Your task to perform on an android device: check data usage Image 0: 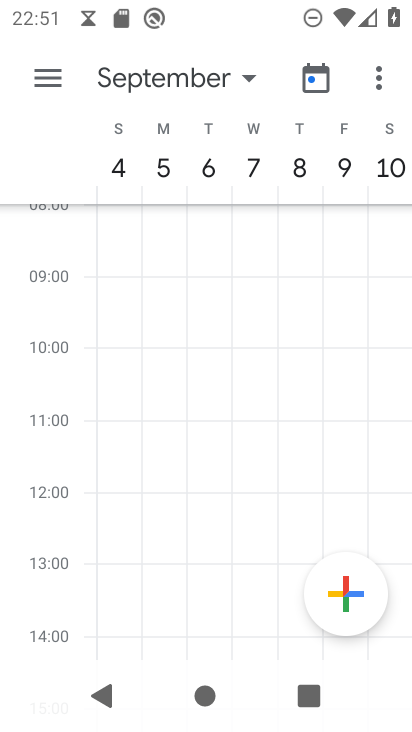
Step 0: press home button
Your task to perform on an android device: check data usage Image 1: 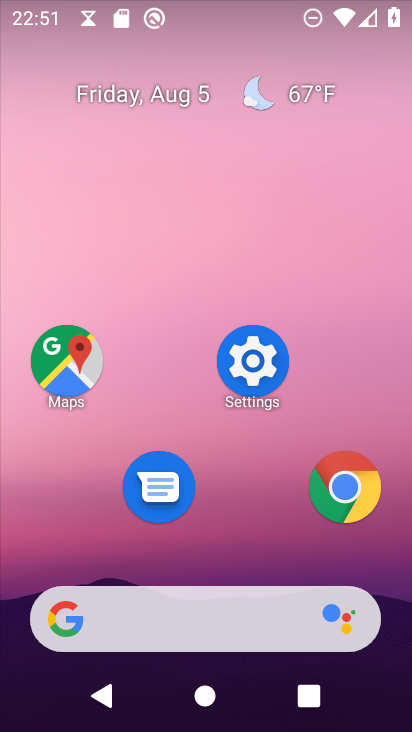
Step 1: click (243, 339)
Your task to perform on an android device: check data usage Image 2: 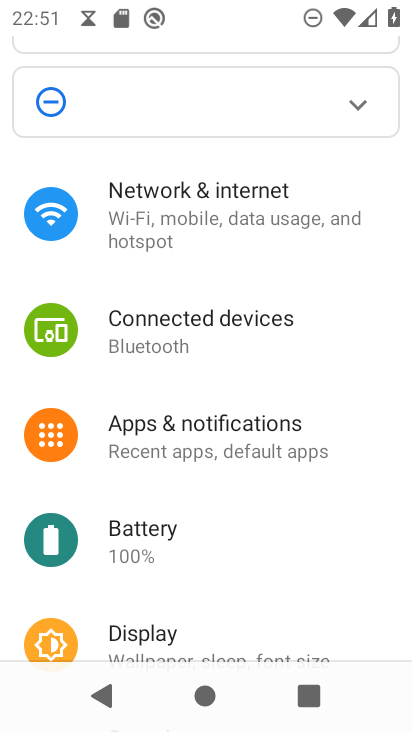
Step 2: click (199, 201)
Your task to perform on an android device: check data usage Image 3: 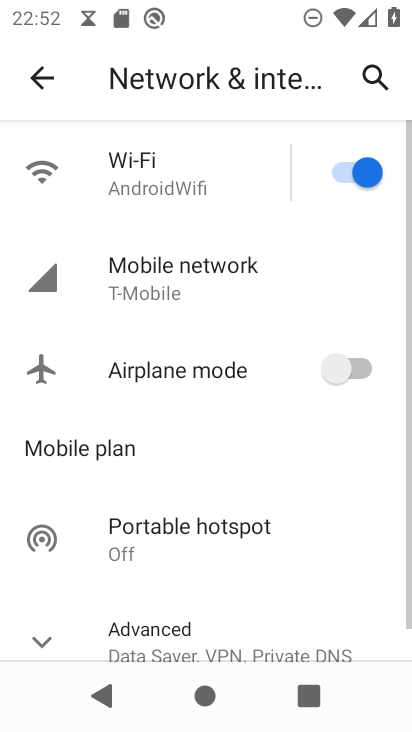
Step 3: drag from (225, 596) to (329, 223)
Your task to perform on an android device: check data usage Image 4: 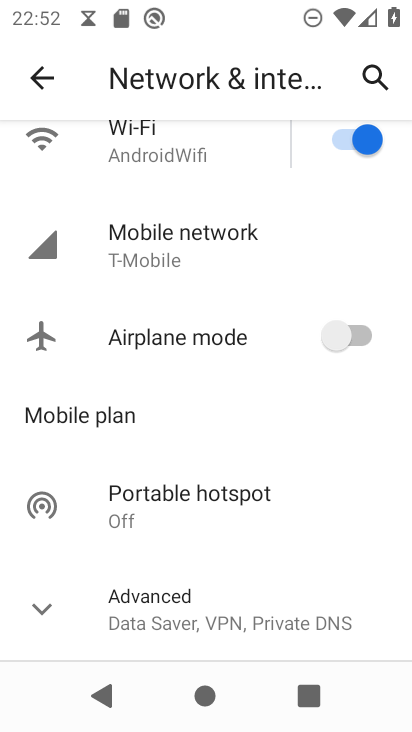
Step 4: drag from (285, 267) to (310, 569)
Your task to perform on an android device: check data usage Image 5: 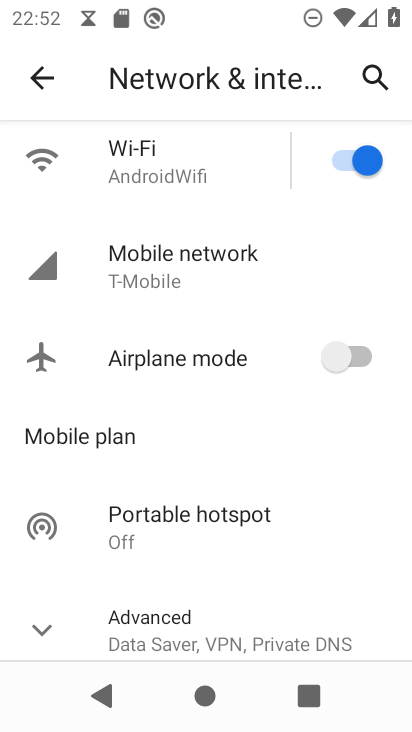
Step 5: click (145, 152)
Your task to perform on an android device: check data usage Image 6: 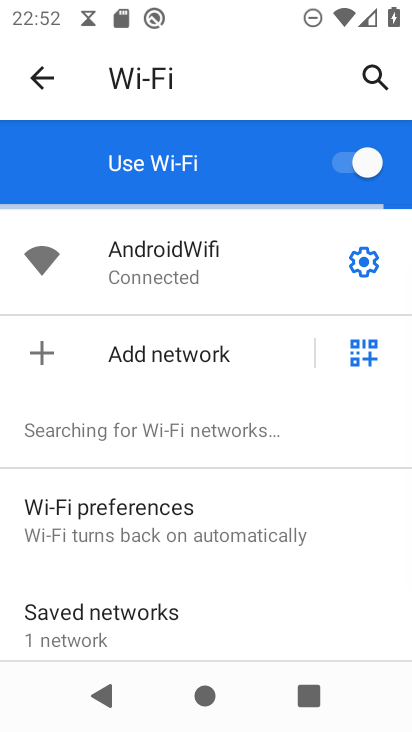
Step 6: drag from (211, 609) to (267, 165)
Your task to perform on an android device: check data usage Image 7: 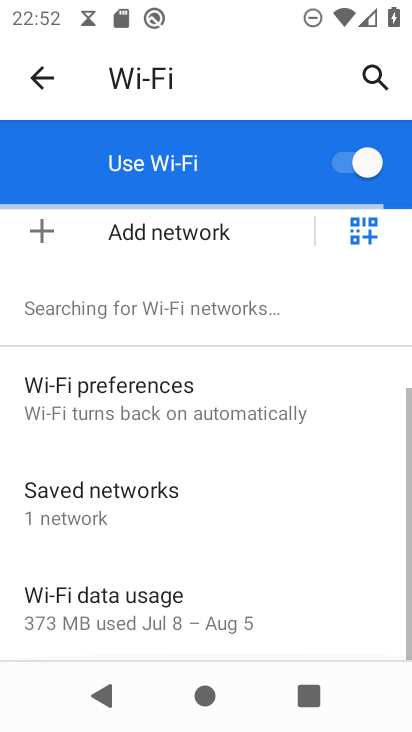
Step 7: click (132, 603)
Your task to perform on an android device: check data usage Image 8: 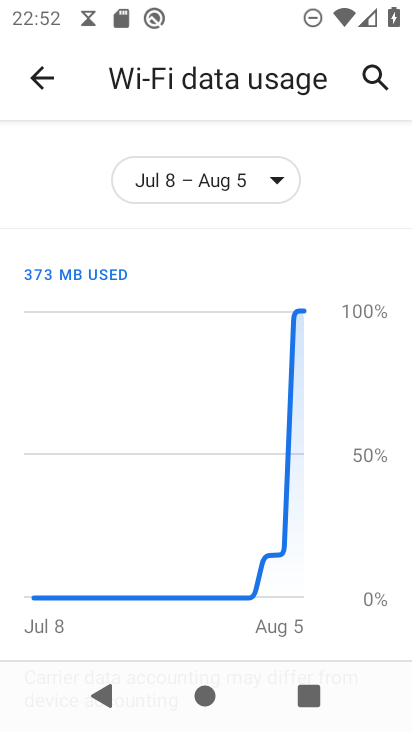
Step 8: task complete